Your task to perform on an android device: Open the calendar app, open the side menu, and click the "Day" option Image 0: 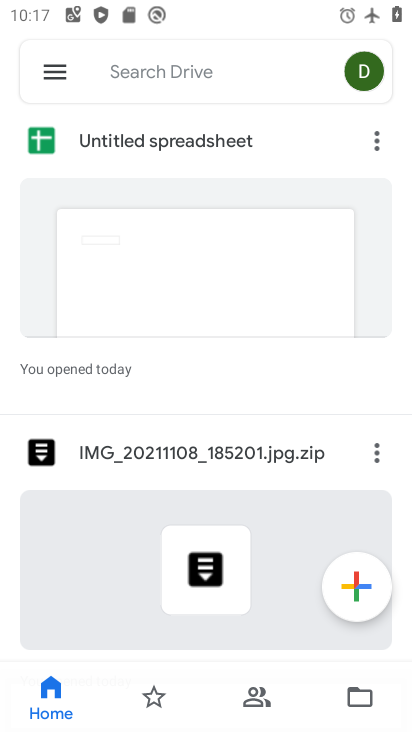
Step 0: press home button
Your task to perform on an android device: Open the calendar app, open the side menu, and click the "Day" option Image 1: 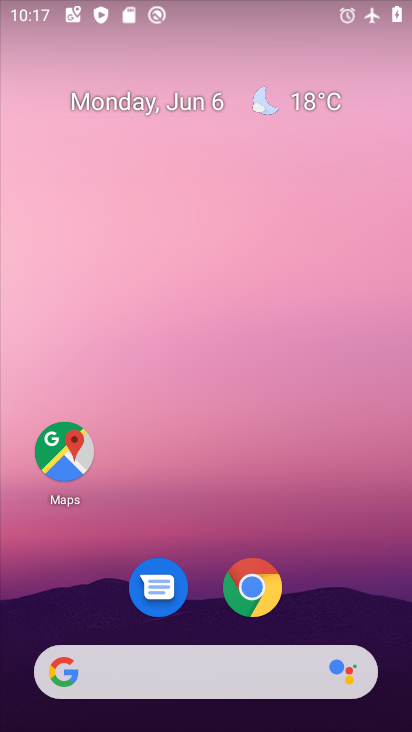
Step 1: drag from (306, 535) to (325, 51)
Your task to perform on an android device: Open the calendar app, open the side menu, and click the "Day" option Image 2: 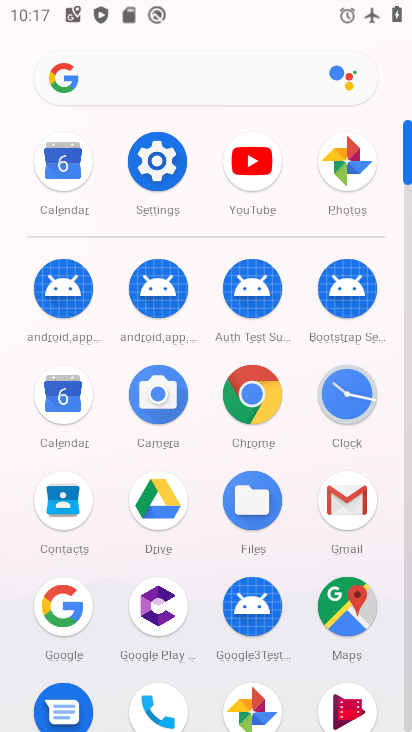
Step 2: click (69, 162)
Your task to perform on an android device: Open the calendar app, open the side menu, and click the "Day" option Image 3: 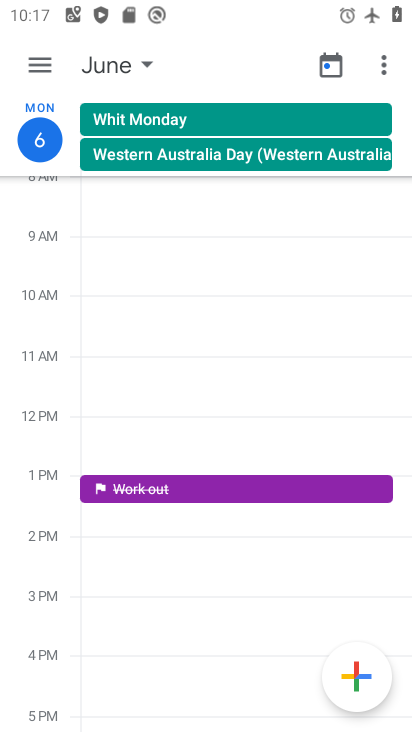
Step 3: click (28, 67)
Your task to perform on an android device: Open the calendar app, open the side menu, and click the "Day" option Image 4: 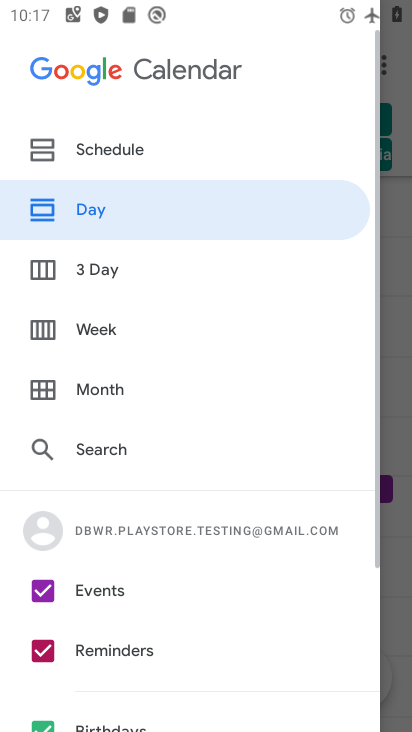
Step 4: click (89, 216)
Your task to perform on an android device: Open the calendar app, open the side menu, and click the "Day" option Image 5: 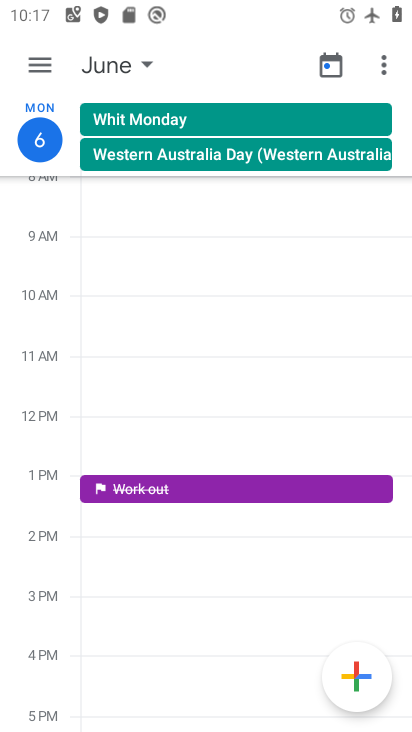
Step 5: task complete